Your task to perform on an android device: What's the weather going to be tomorrow? Image 0: 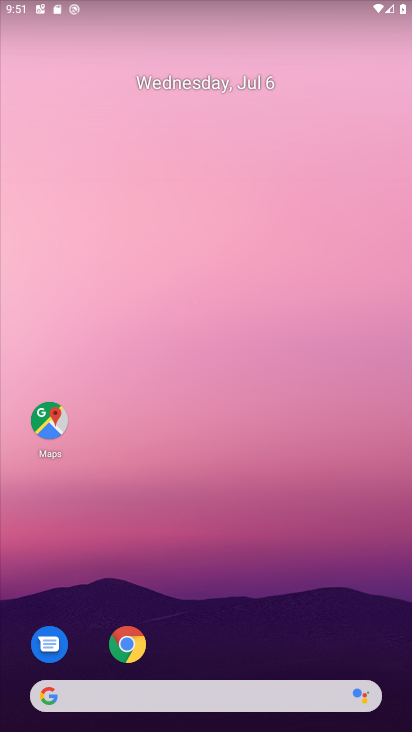
Step 0: drag from (224, 679) to (235, 135)
Your task to perform on an android device: What's the weather going to be tomorrow? Image 1: 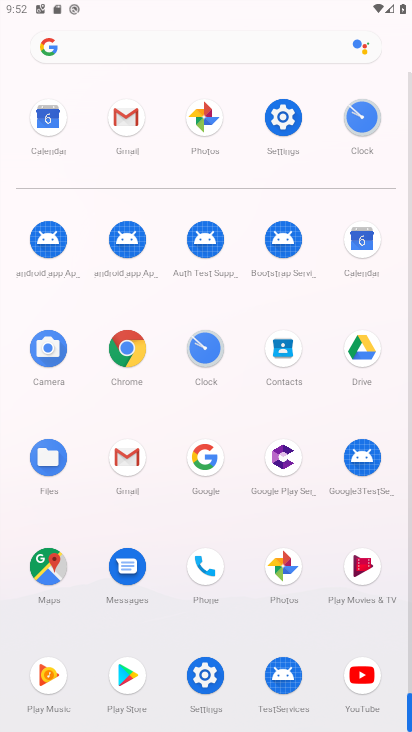
Step 1: click (214, 478)
Your task to perform on an android device: What's the weather going to be tomorrow? Image 2: 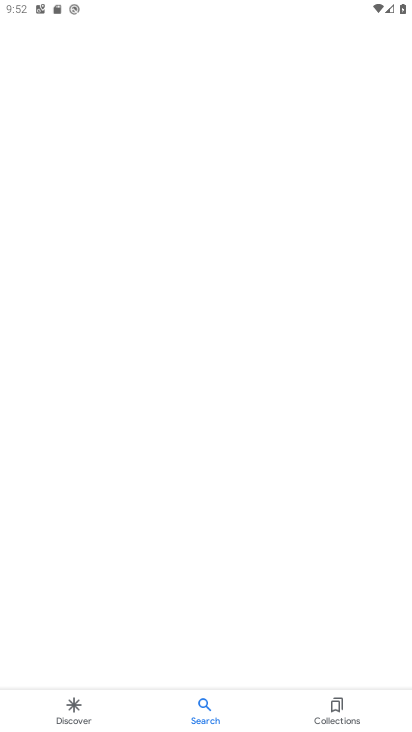
Step 2: task complete